Your task to perform on an android device: When is my next meeting? Image 0: 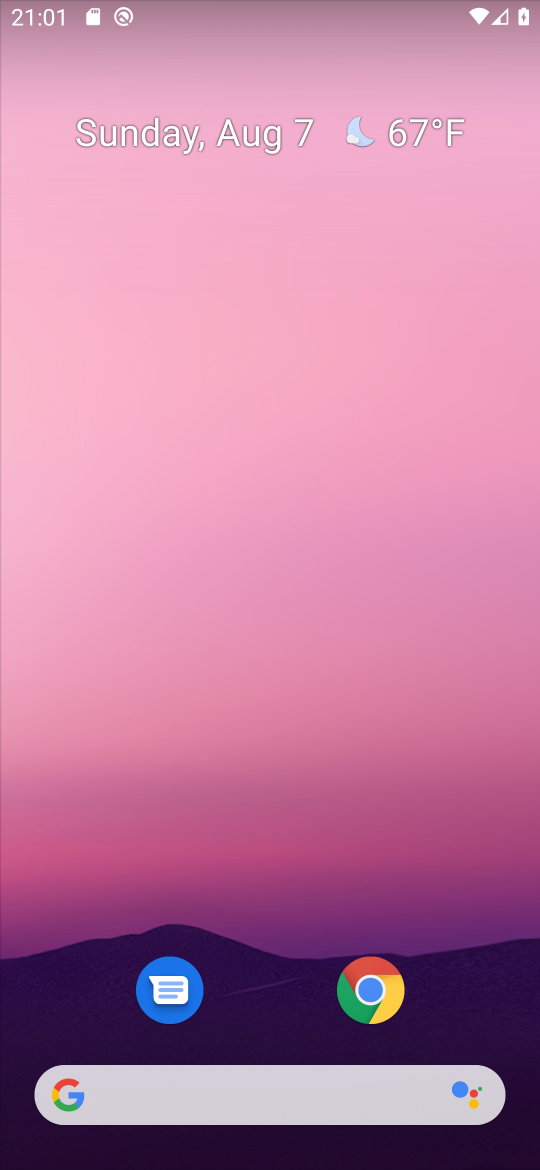
Step 0: drag from (310, 849) to (337, 27)
Your task to perform on an android device: When is my next meeting? Image 1: 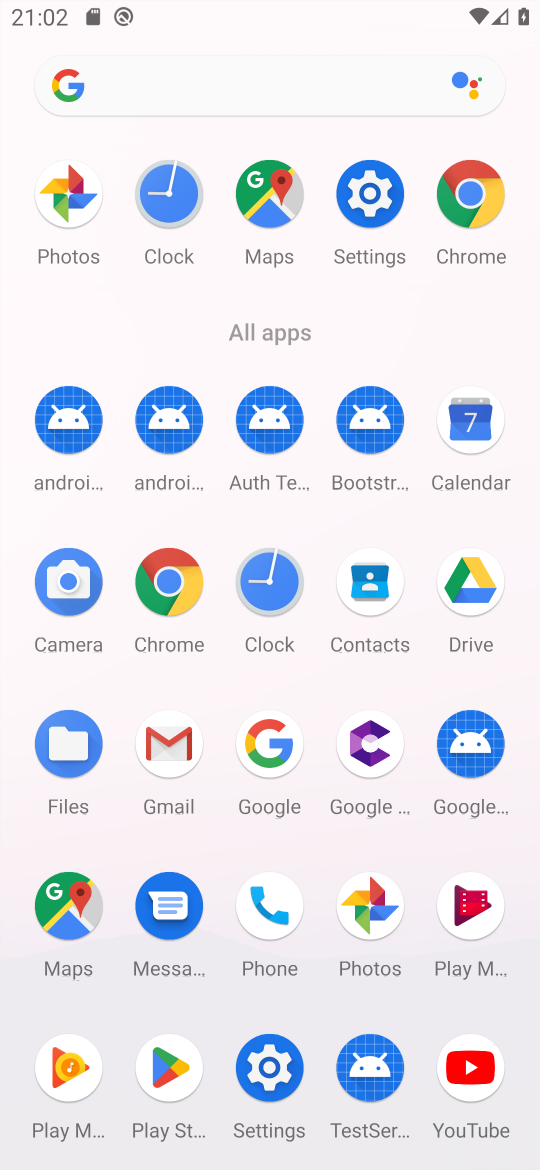
Step 1: click (478, 422)
Your task to perform on an android device: When is my next meeting? Image 2: 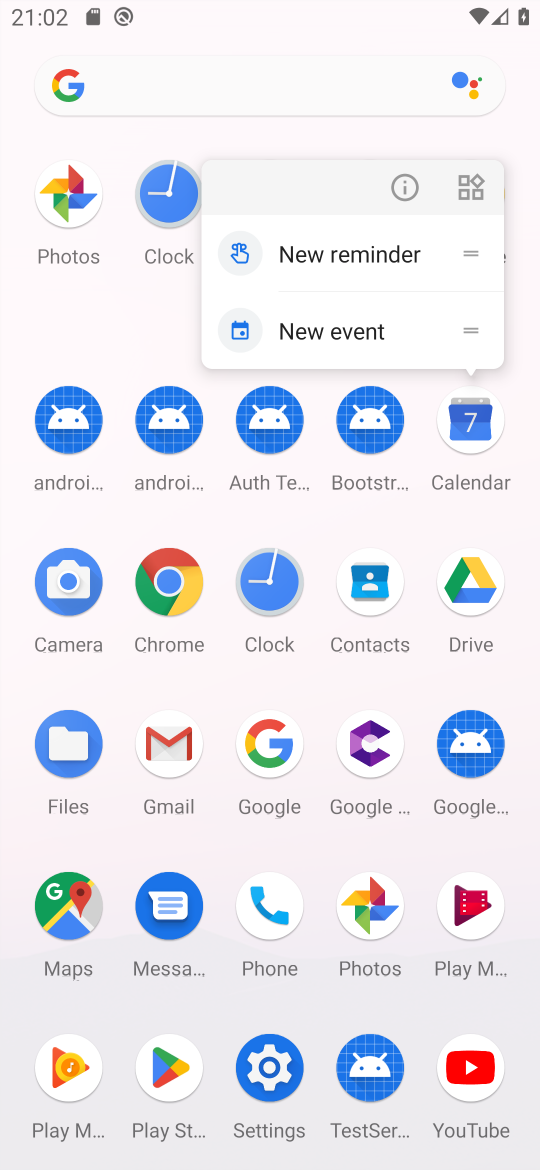
Step 2: click (478, 422)
Your task to perform on an android device: When is my next meeting? Image 3: 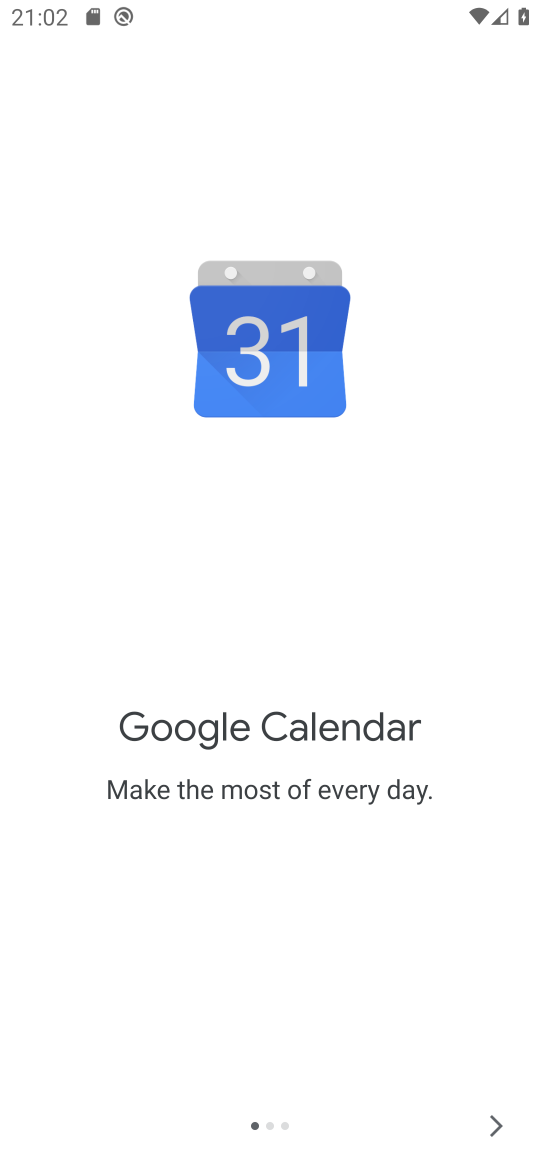
Step 3: click (493, 1122)
Your task to perform on an android device: When is my next meeting? Image 4: 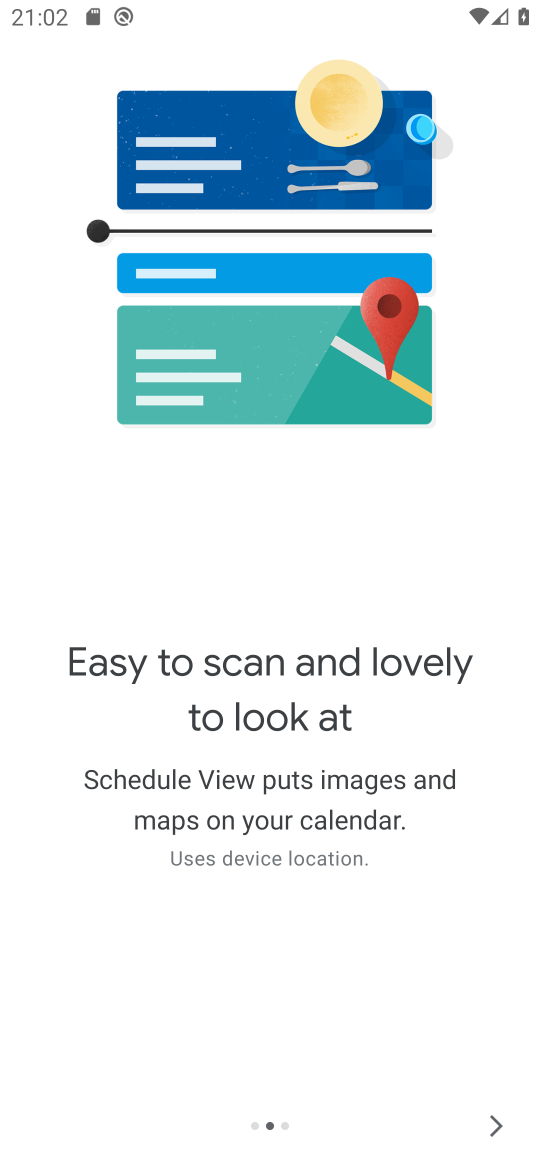
Step 4: click (493, 1122)
Your task to perform on an android device: When is my next meeting? Image 5: 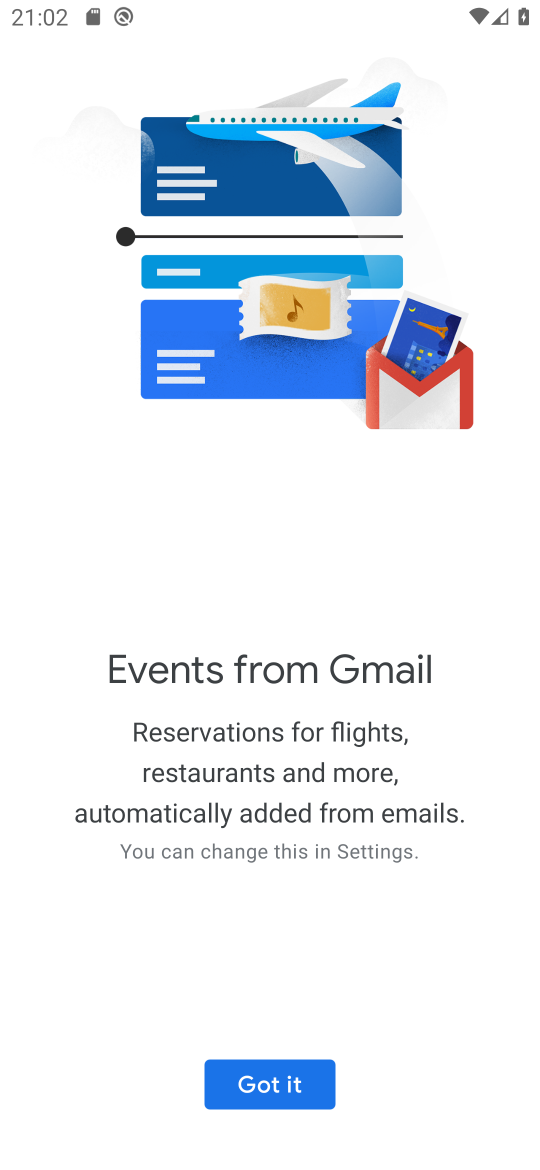
Step 5: click (314, 1086)
Your task to perform on an android device: When is my next meeting? Image 6: 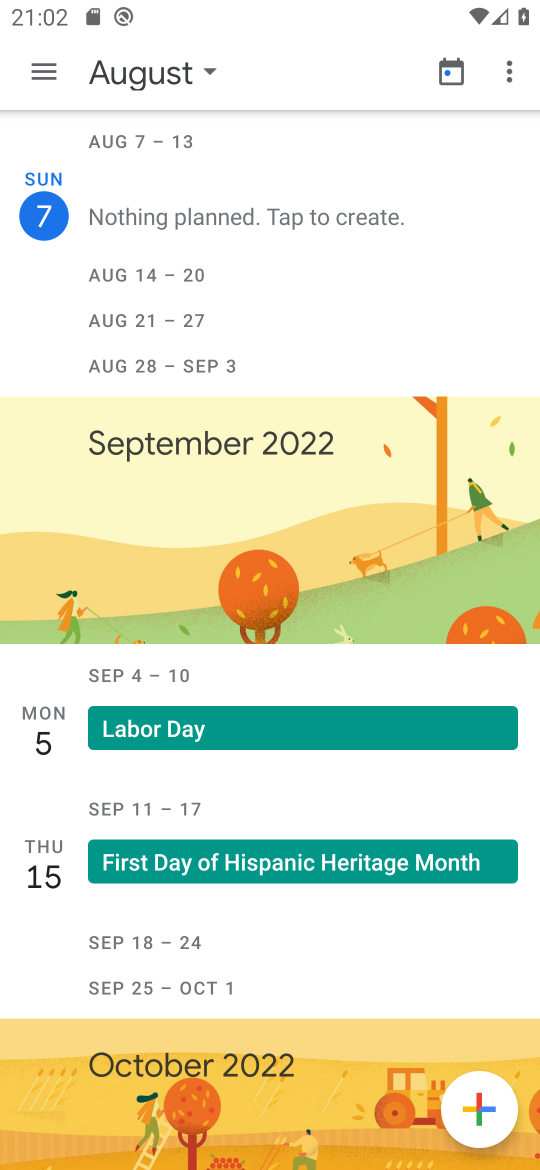
Step 6: task complete